Your task to perform on an android device: Open my contact list Image 0: 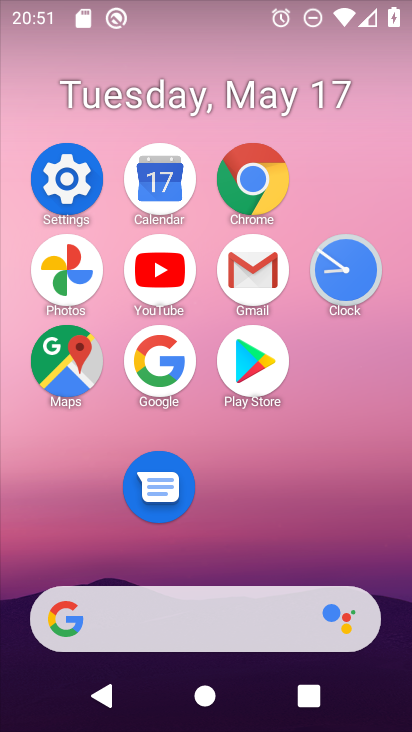
Step 0: drag from (299, 557) to (368, 8)
Your task to perform on an android device: Open my contact list Image 1: 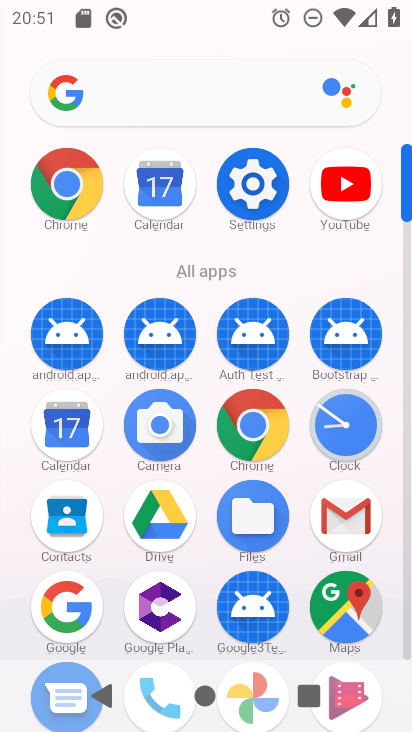
Step 1: drag from (241, 572) to (270, 161)
Your task to perform on an android device: Open my contact list Image 2: 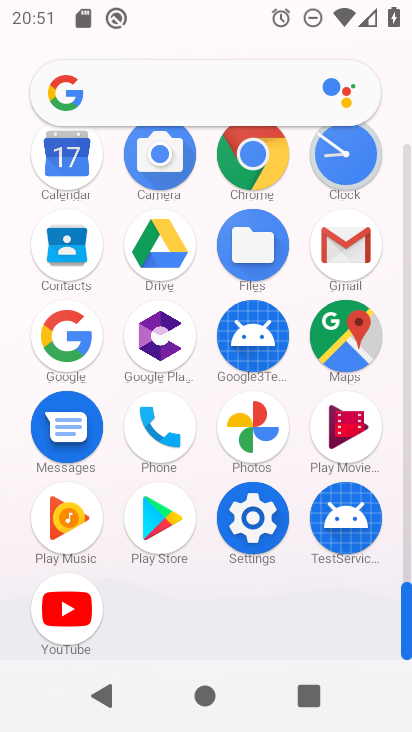
Step 2: click (61, 245)
Your task to perform on an android device: Open my contact list Image 3: 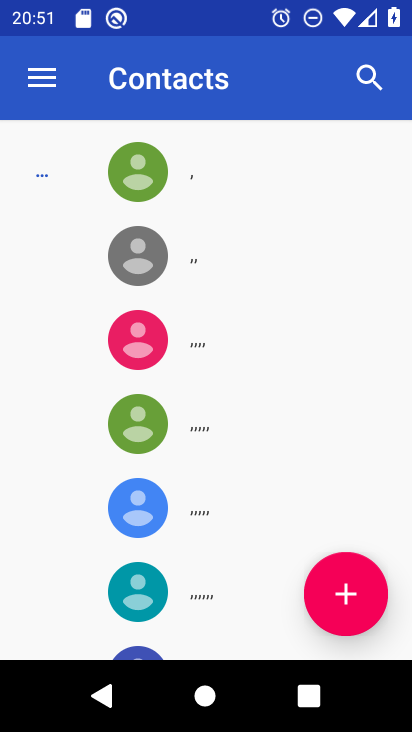
Step 3: task complete